Your task to perform on an android device: turn off smart reply in the gmail app Image 0: 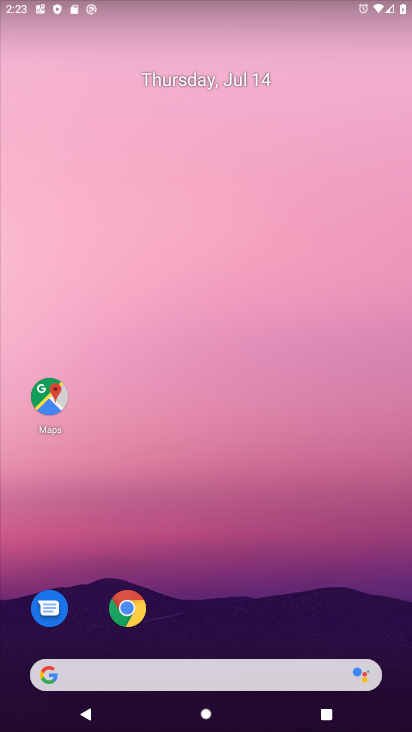
Step 0: drag from (252, 706) to (246, 76)
Your task to perform on an android device: turn off smart reply in the gmail app Image 1: 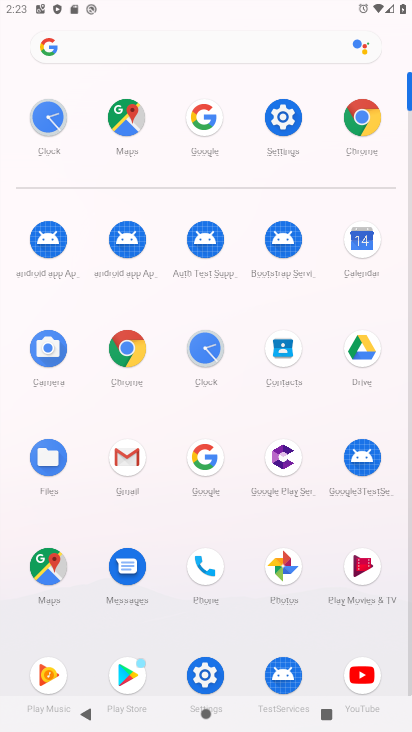
Step 1: click (130, 456)
Your task to perform on an android device: turn off smart reply in the gmail app Image 2: 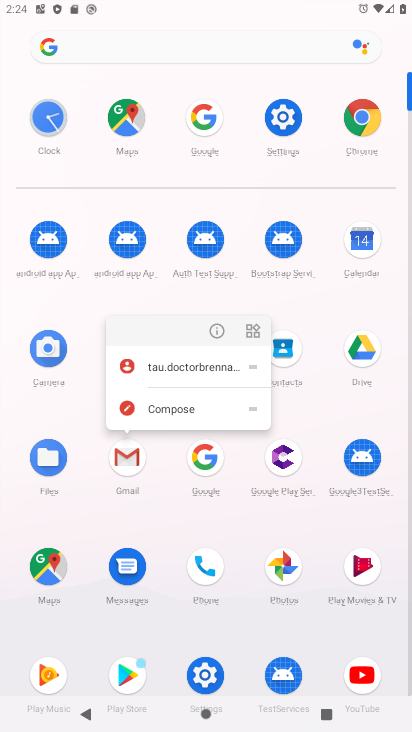
Step 2: click (130, 456)
Your task to perform on an android device: turn off smart reply in the gmail app Image 3: 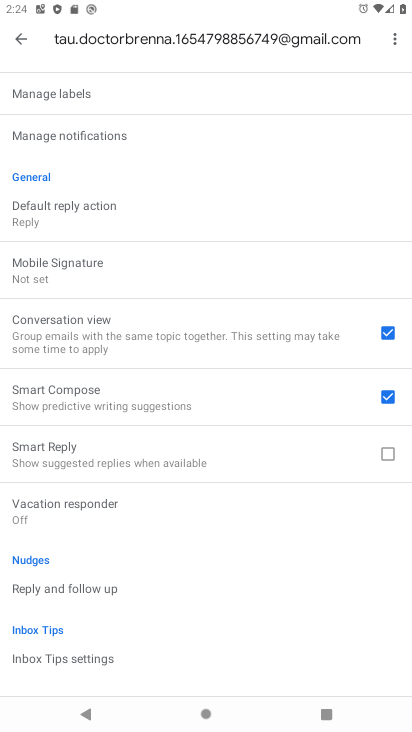
Step 3: task complete